Your task to perform on an android device: Open Google Image 0: 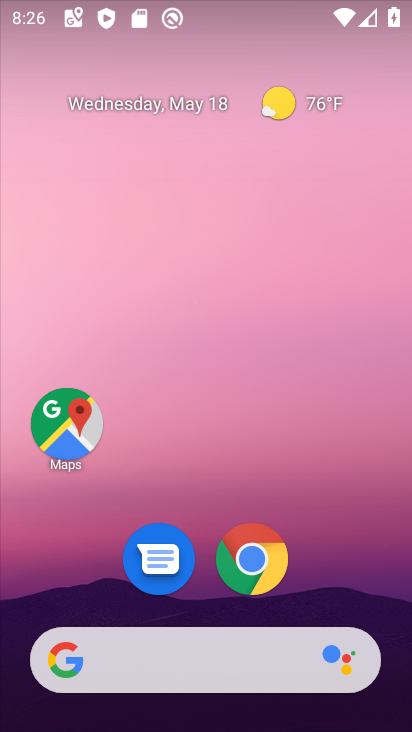
Step 0: drag from (213, 585) to (212, 83)
Your task to perform on an android device: Open Google Image 1: 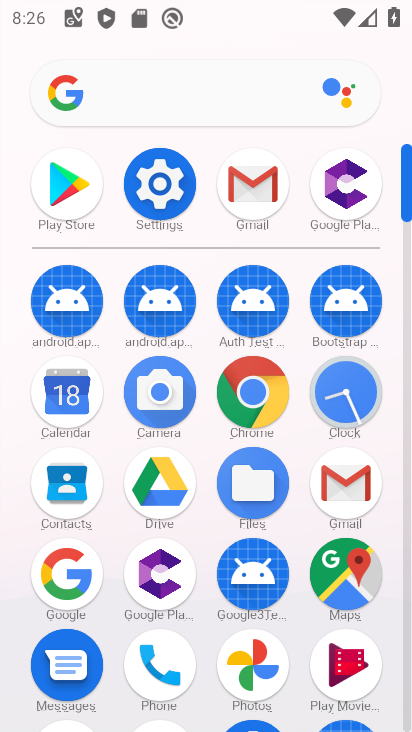
Step 1: click (72, 573)
Your task to perform on an android device: Open Google Image 2: 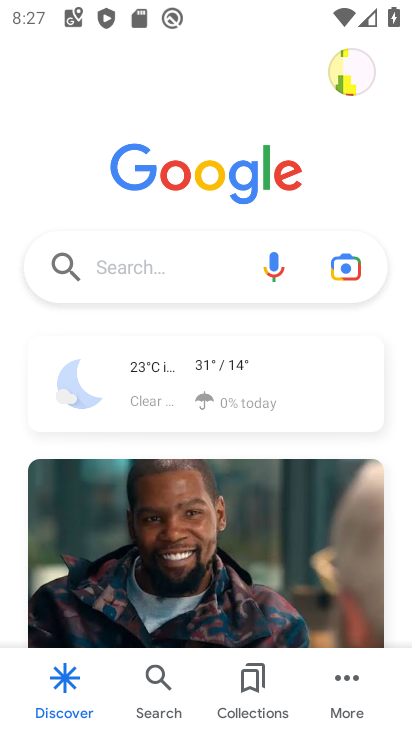
Step 2: task complete